Your task to perform on an android device: Search for good Italian restaurants on Maps Image 0: 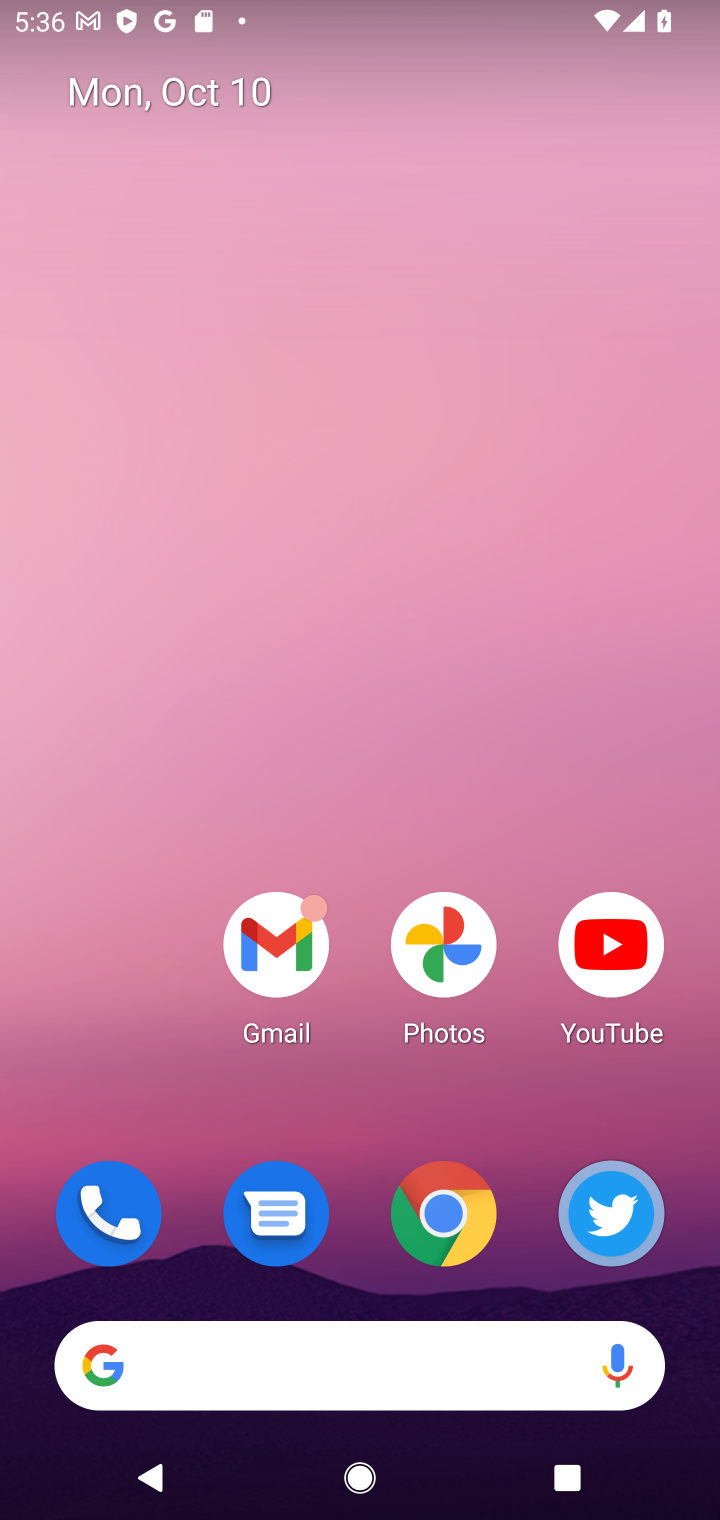
Step 0: drag from (351, 1122) to (445, 452)
Your task to perform on an android device: Search for good Italian restaurants on Maps Image 1: 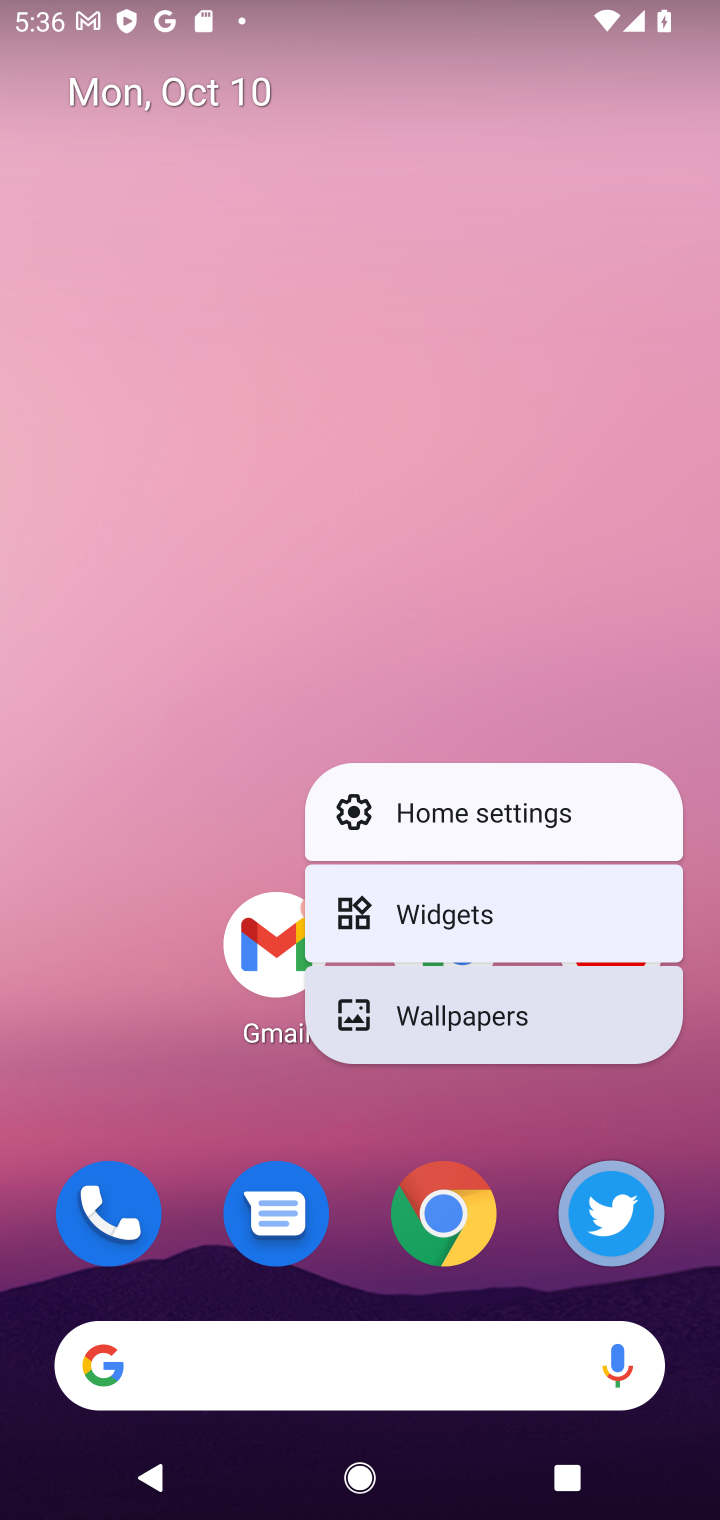
Step 1: click (347, 619)
Your task to perform on an android device: Search for good Italian restaurants on Maps Image 2: 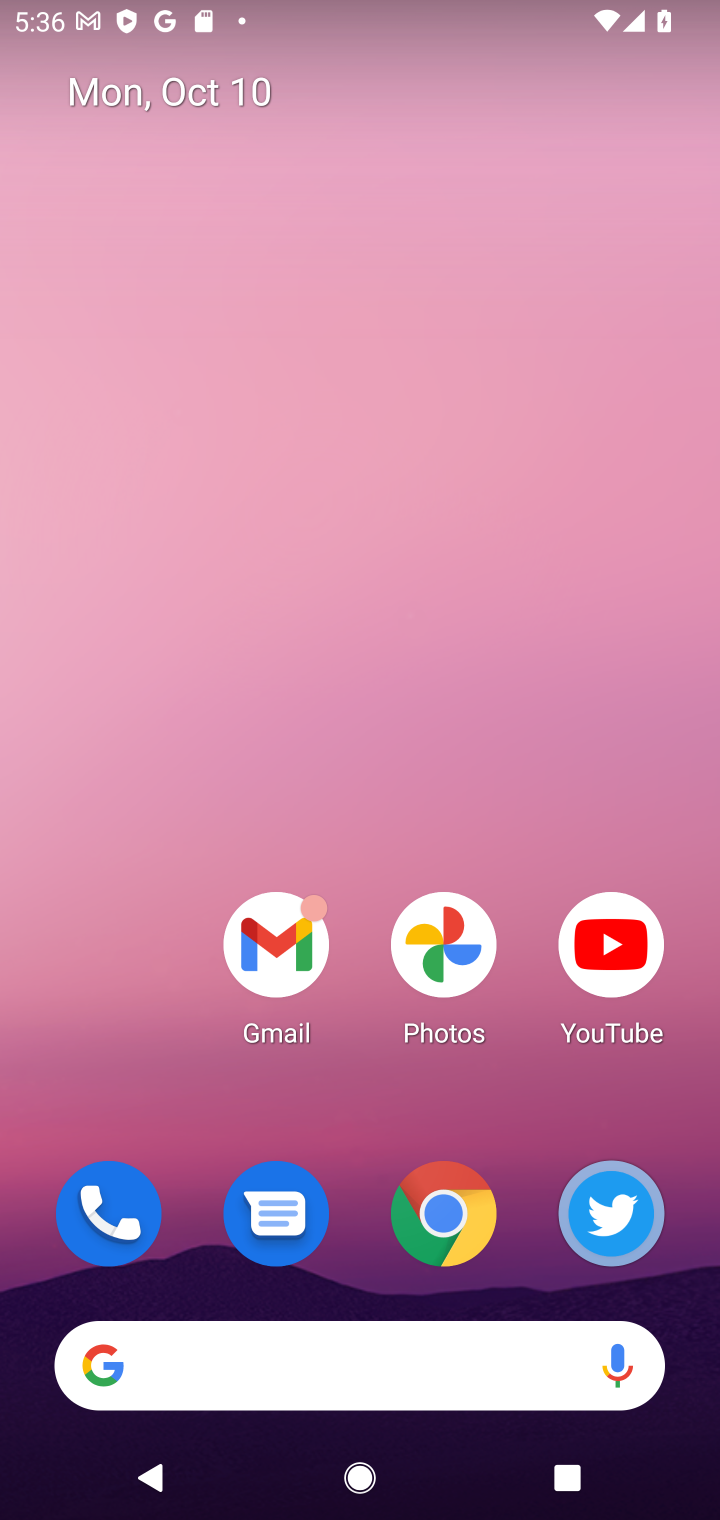
Step 2: drag from (330, 1107) to (354, 309)
Your task to perform on an android device: Search for good Italian restaurants on Maps Image 3: 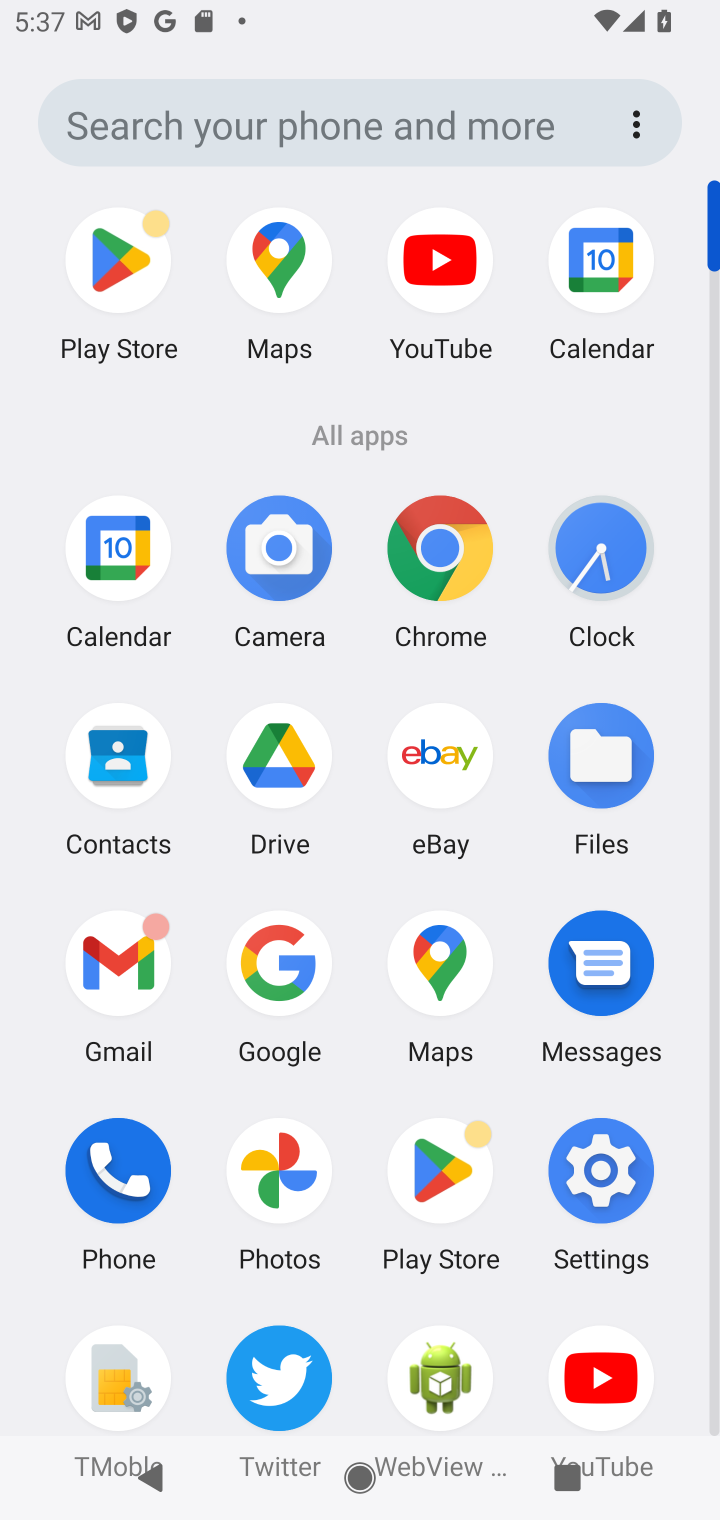
Step 3: click (415, 983)
Your task to perform on an android device: Search for good Italian restaurants on Maps Image 4: 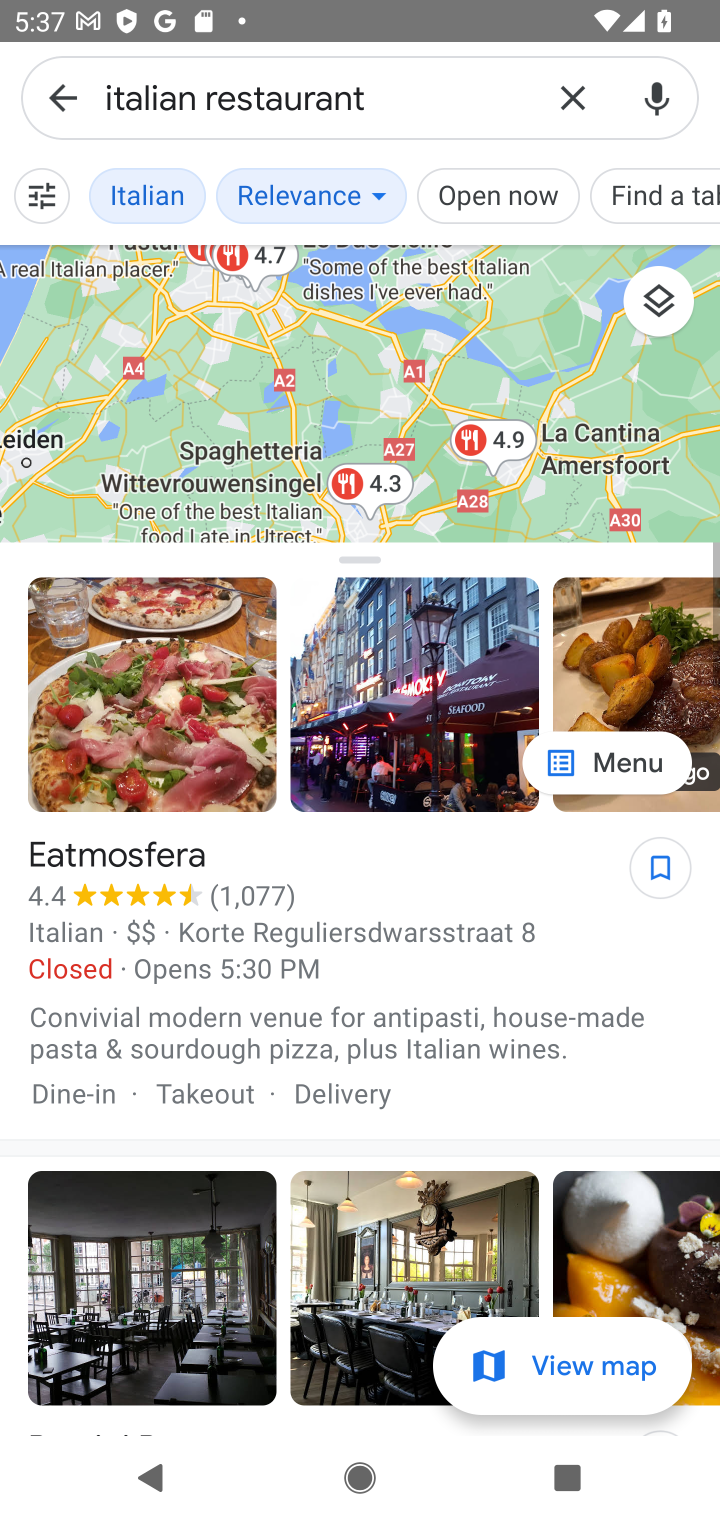
Step 4: click (574, 97)
Your task to perform on an android device: Search for good Italian restaurants on Maps Image 5: 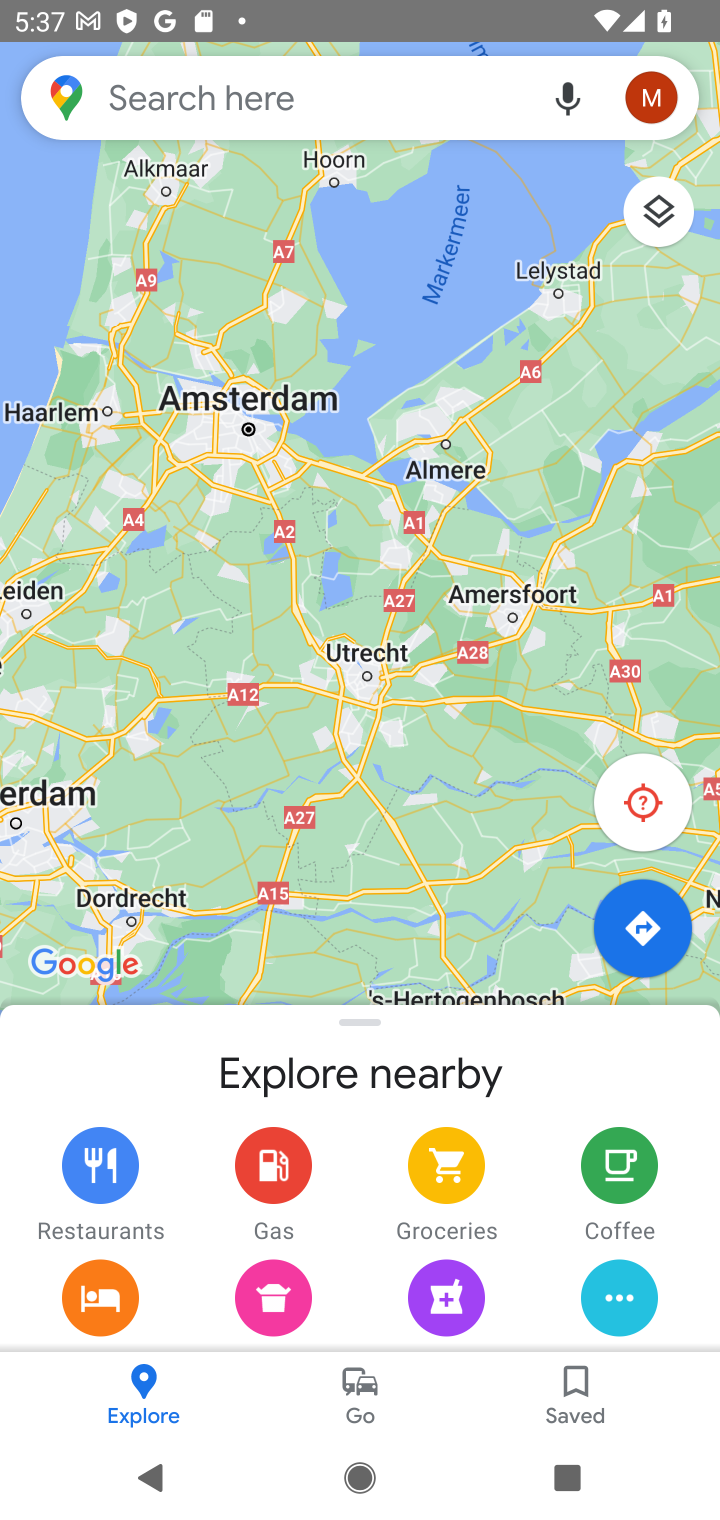
Step 5: type "good Italian restaurants"
Your task to perform on an android device: Search for good Italian restaurants on Maps Image 6: 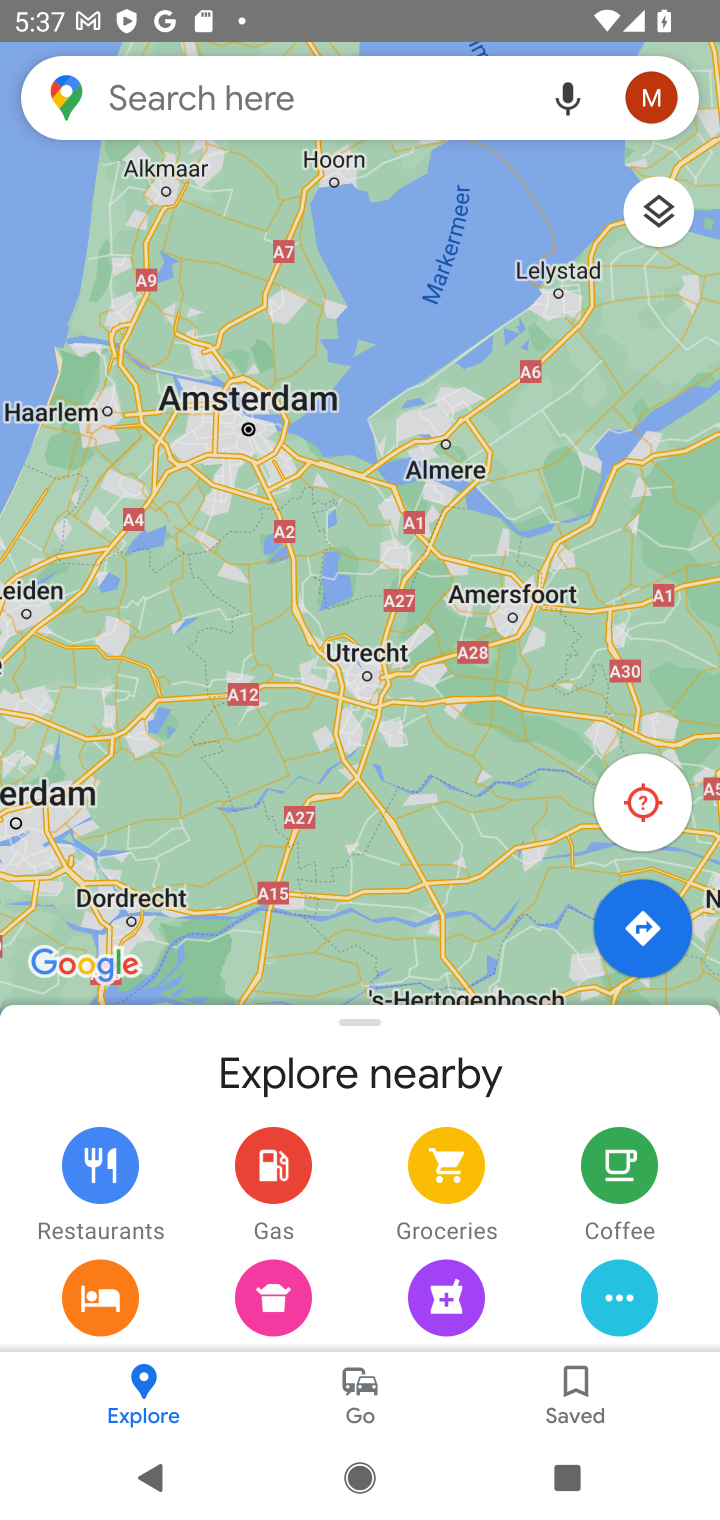
Step 6: click (310, 125)
Your task to perform on an android device: Search for good Italian restaurants on Maps Image 7: 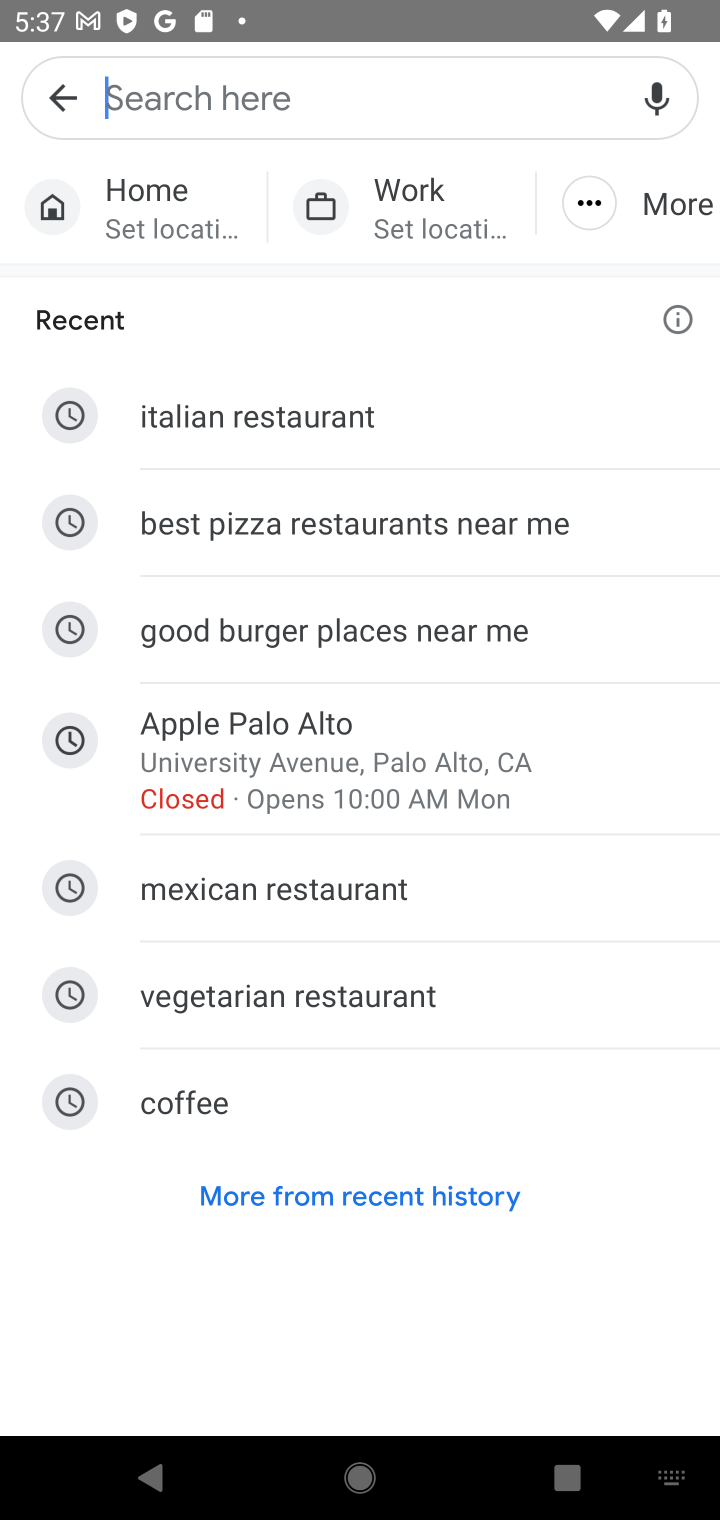
Step 7: click (363, 434)
Your task to perform on an android device: Search for good Italian restaurants on Maps Image 8: 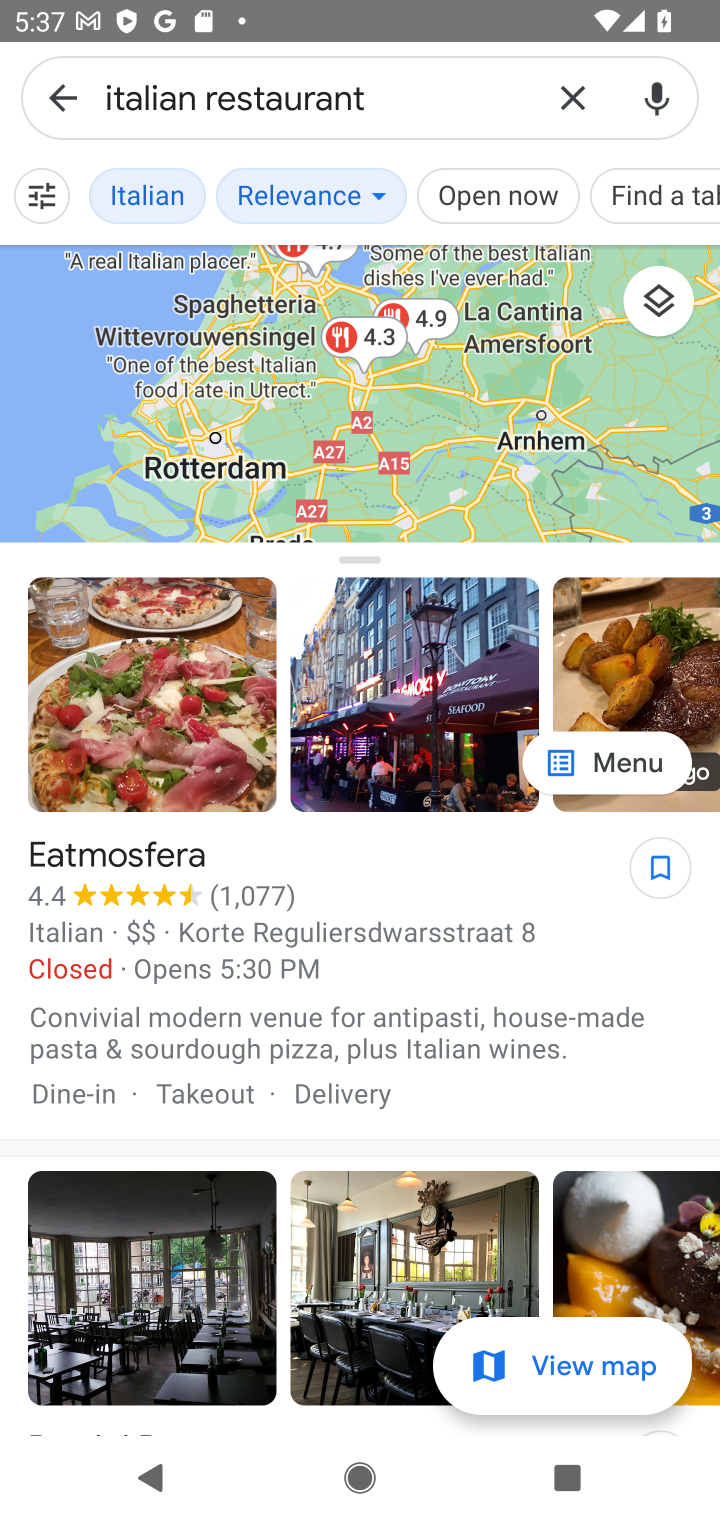
Step 8: task complete